Your task to perform on an android device: Open privacy settings Image 0: 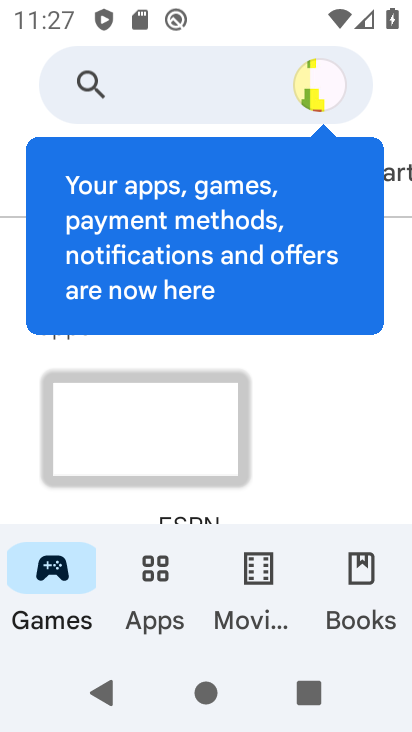
Step 0: press back button
Your task to perform on an android device: Open privacy settings Image 1: 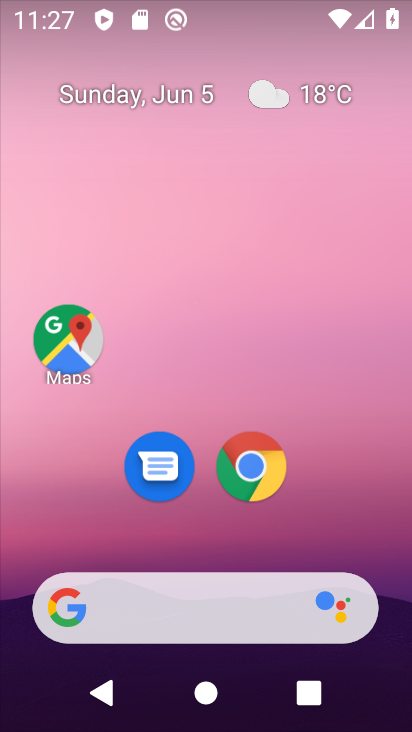
Step 1: drag from (344, 515) to (271, 44)
Your task to perform on an android device: Open privacy settings Image 2: 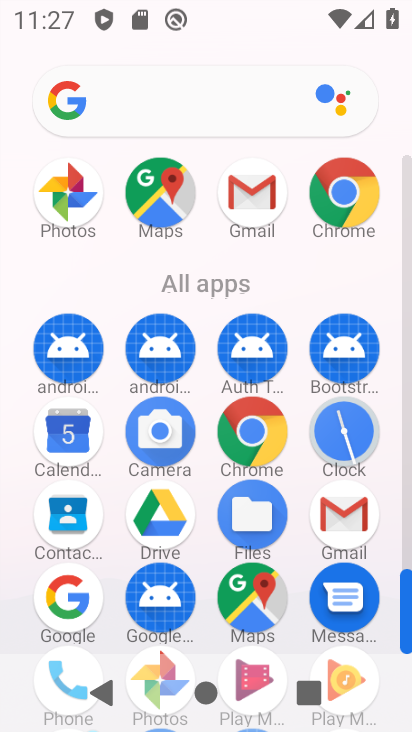
Step 2: drag from (2, 576) to (38, 247)
Your task to perform on an android device: Open privacy settings Image 3: 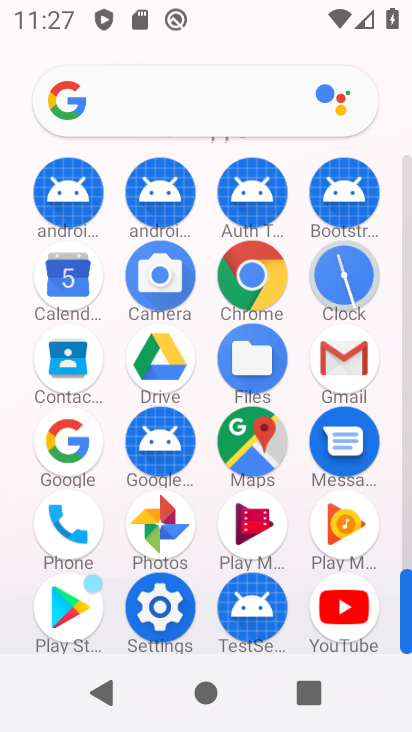
Step 3: click (160, 607)
Your task to perform on an android device: Open privacy settings Image 4: 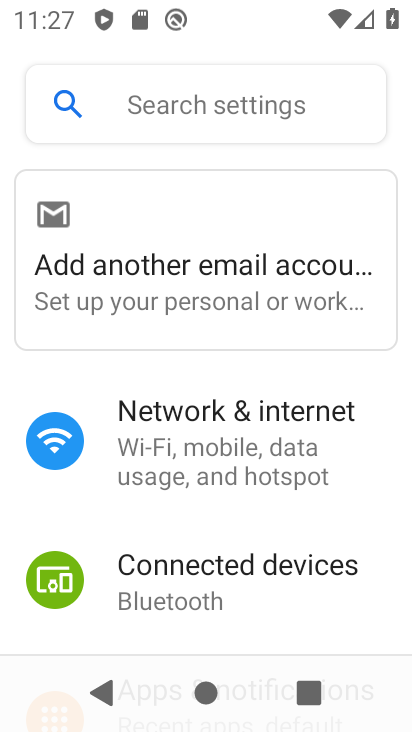
Step 4: drag from (250, 581) to (319, 155)
Your task to perform on an android device: Open privacy settings Image 5: 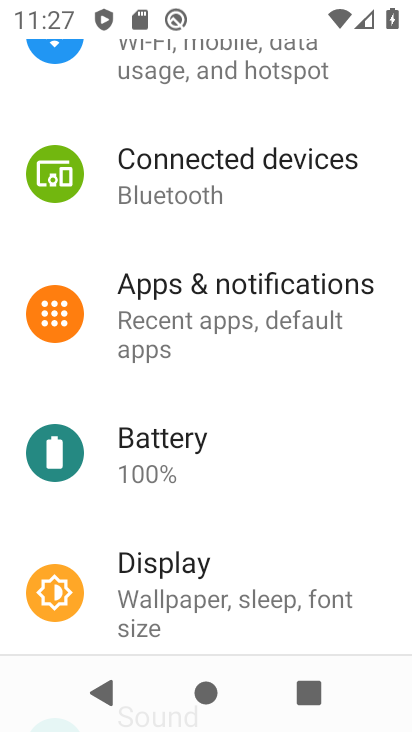
Step 5: drag from (249, 515) to (282, 168)
Your task to perform on an android device: Open privacy settings Image 6: 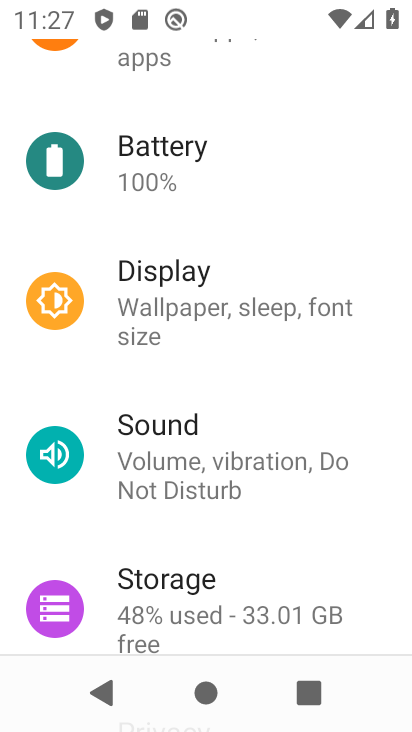
Step 6: drag from (262, 505) to (290, 155)
Your task to perform on an android device: Open privacy settings Image 7: 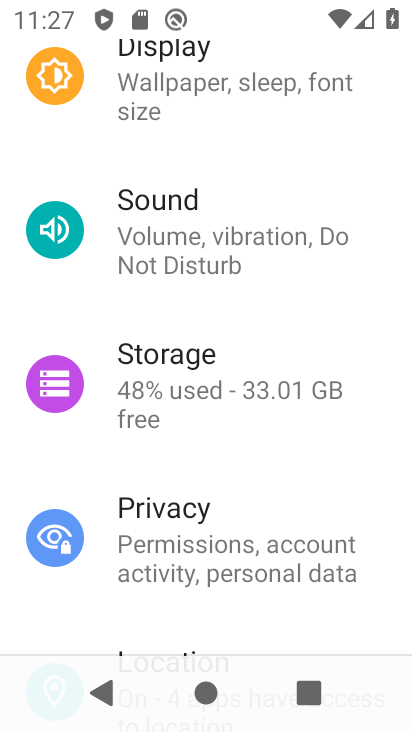
Step 7: click (224, 548)
Your task to perform on an android device: Open privacy settings Image 8: 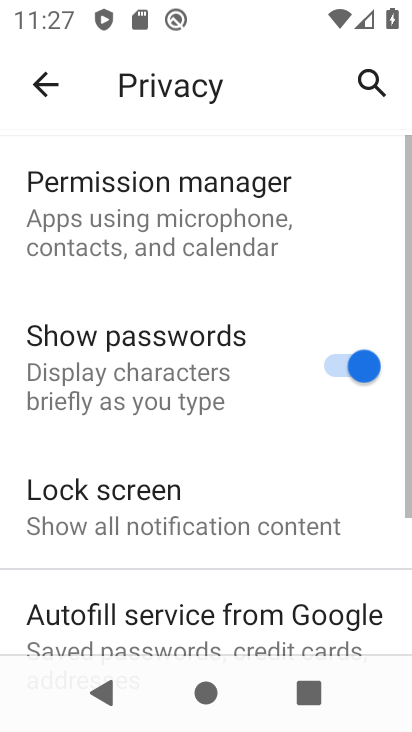
Step 8: drag from (181, 525) to (224, 173)
Your task to perform on an android device: Open privacy settings Image 9: 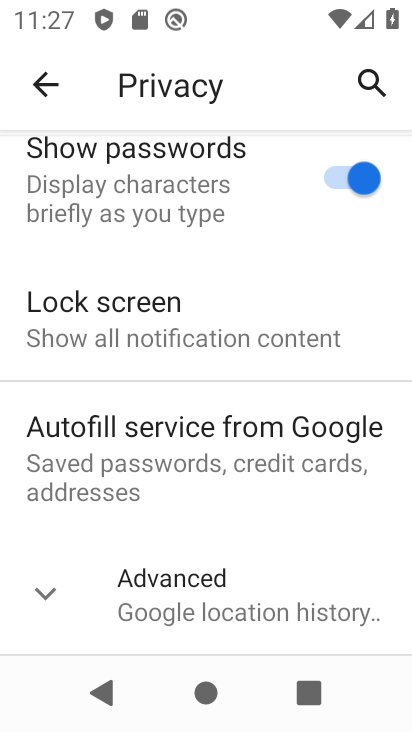
Step 9: click (41, 586)
Your task to perform on an android device: Open privacy settings Image 10: 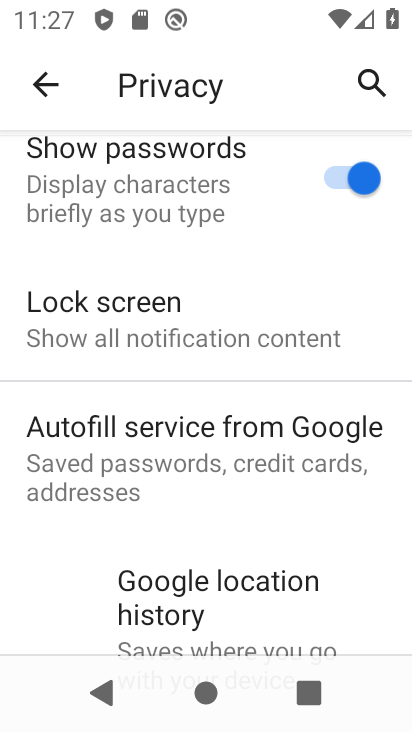
Step 10: task complete